Your task to perform on an android device: Open the stopwatch Image 0: 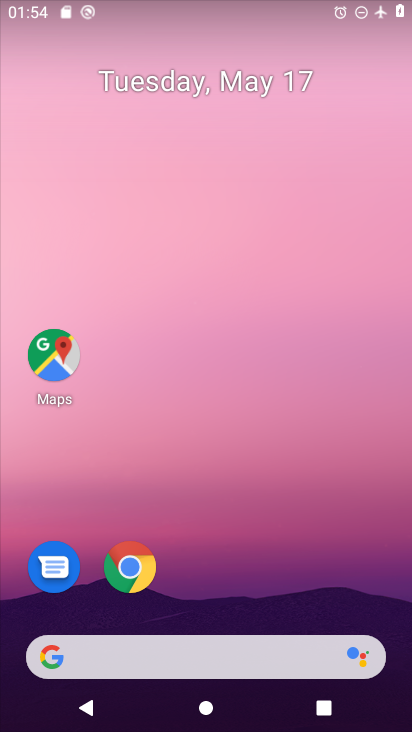
Step 0: drag from (243, 515) to (115, 56)
Your task to perform on an android device: Open the stopwatch Image 1: 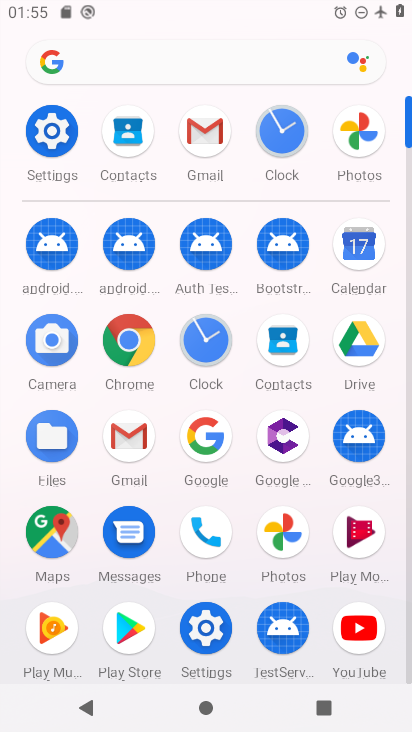
Step 1: click (281, 173)
Your task to perform on an android device: Open the stopwatch Image 2: 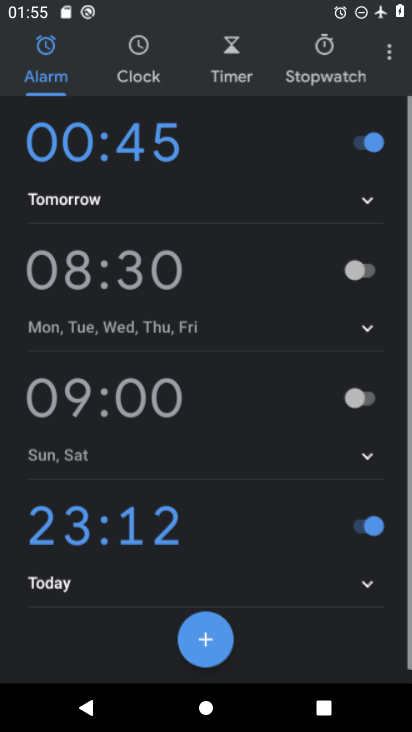
Step 2: click (277, 153)
Your task to perform on an android device: Open the stopwatch Image 3: 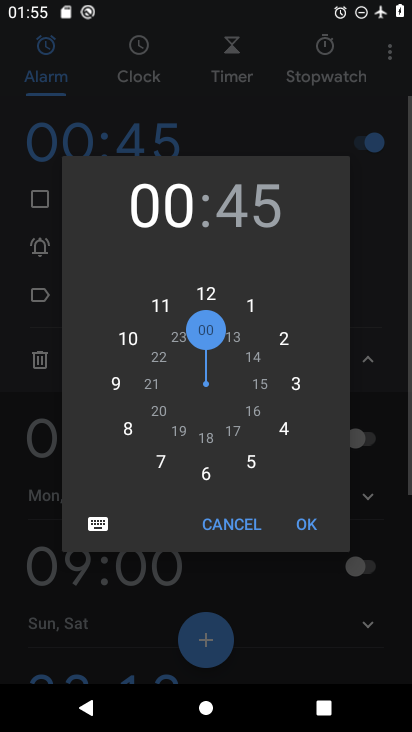
Step 3: click (322, 54)
Your task to perform on an android device: Open the stopwatch Image 4: 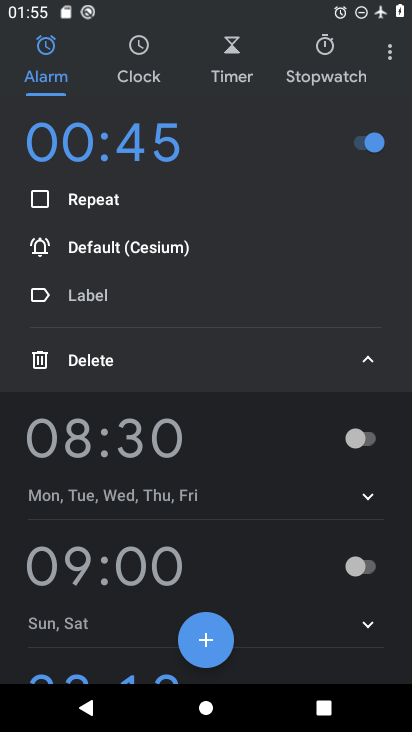
Step 4: click (322, 54)
Your task to perform on an android device: Open the stopwatch Image 5: 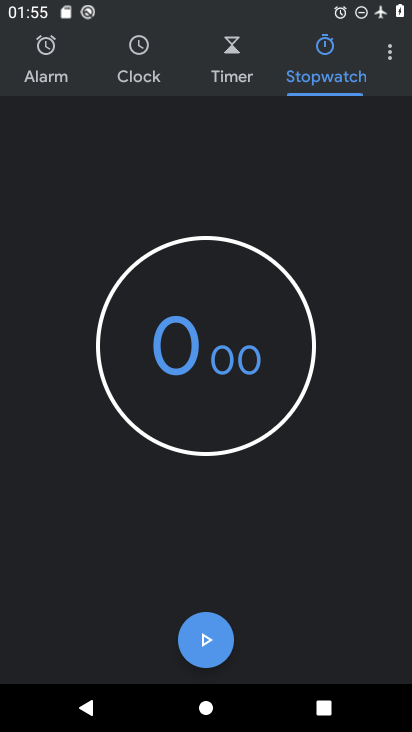
Step 5: task complete